Your task to perform on an android device: Show the shopping cart on amazon.com. Image 0: 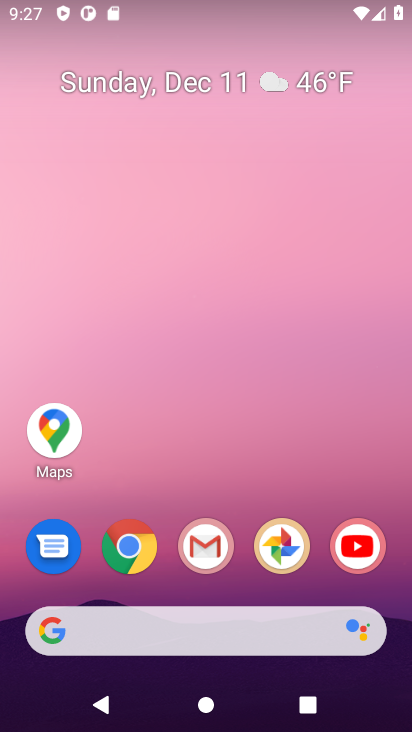
Step 0: click (131, 547)
Your task to perform on an android device: Show the shopping cart on amazon.com. Image 1: 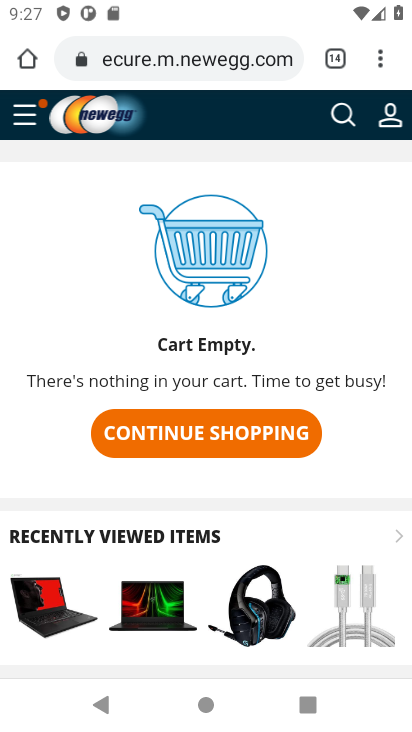
Step 1: click (153, 61)
Your task to perform on an android device: Show the shopping cart on amazon.com. Image 2: 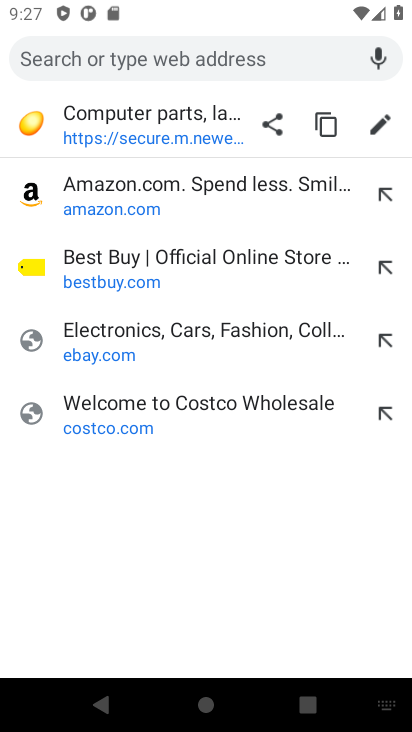
Step 2: click (99, 193)
Your task to perform on an android device: Show the shopping cart on amazon.com. Image 3: 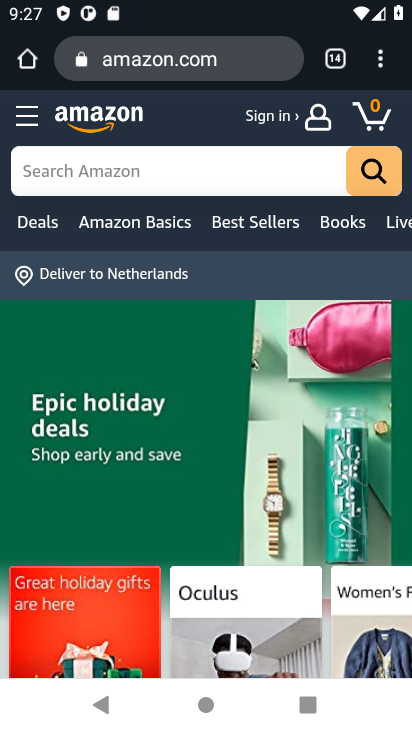
Step 3: click (373, 112)
Your task to perform on an android device: Show the shopping cart on amazon.com. Image 4: 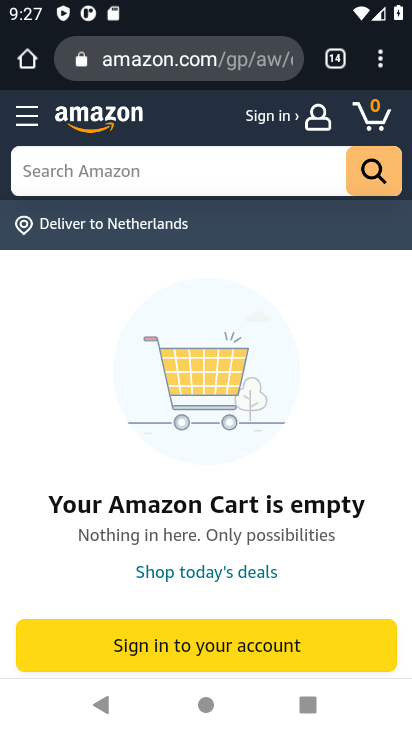
Step 4: task complete